Your task to perform on an android device: Open the web browser Image 0: 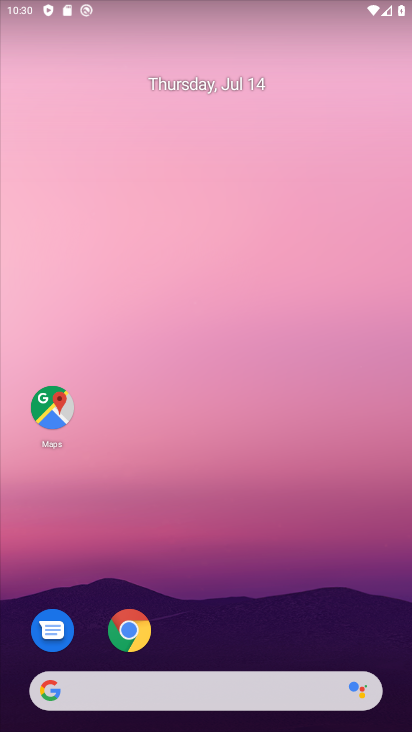
Step 0: drag from (130, 325) to (113, 212)
Your task to perform on an android device: Open the web browser Image 1: 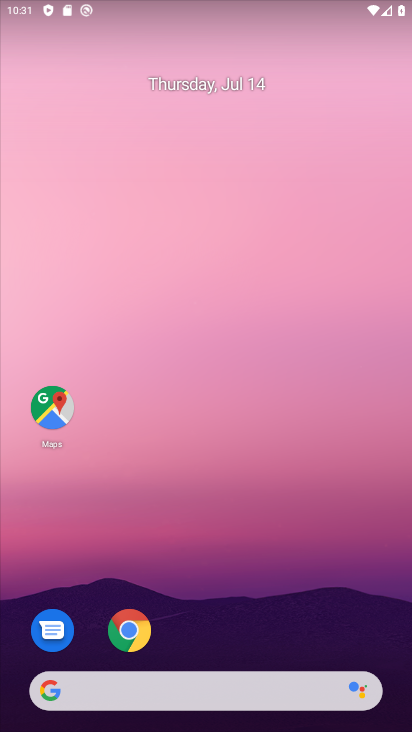
Step 1: click (147, 626)
Your task to perform on an android device: Open the web browser Image 2: 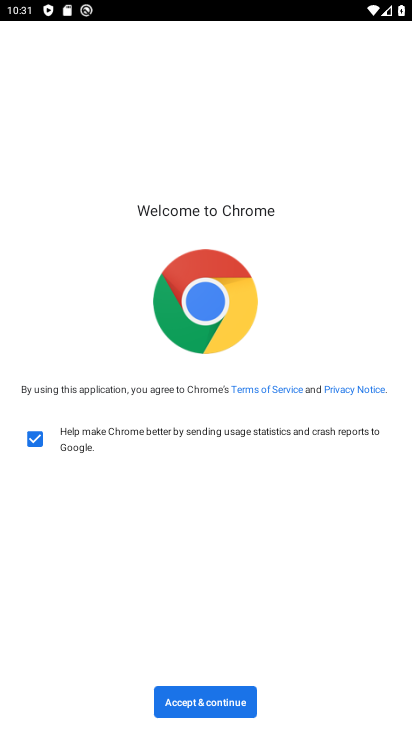
Step 2: task complete